Your task to perform on an android device: delete the emails in spam in the gmail app Image 0: 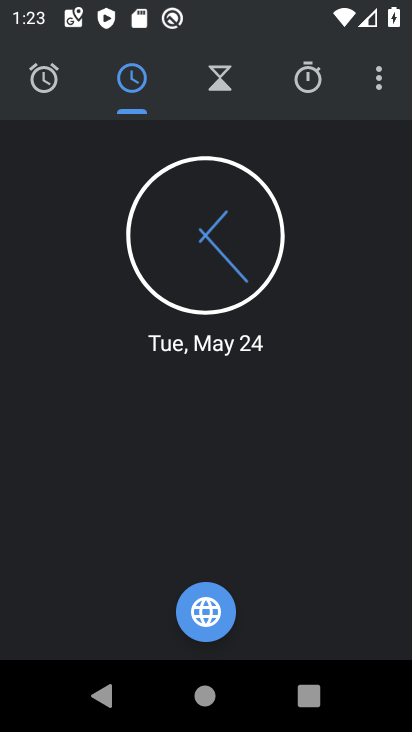
Step 0: press home button
Your task to perform on an android device: delete the emails in spam in the gmail app Image 1: 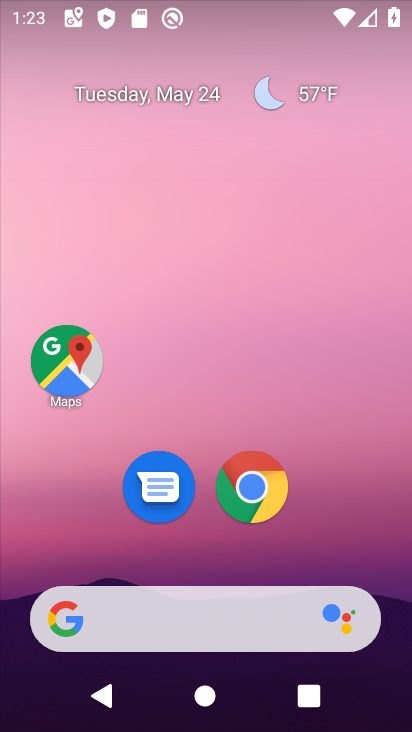
Step 1: drag from (232, 724) to (227, 129)
Your task to perform on an android device: delete the emails in spam in the gmail app Image 2: 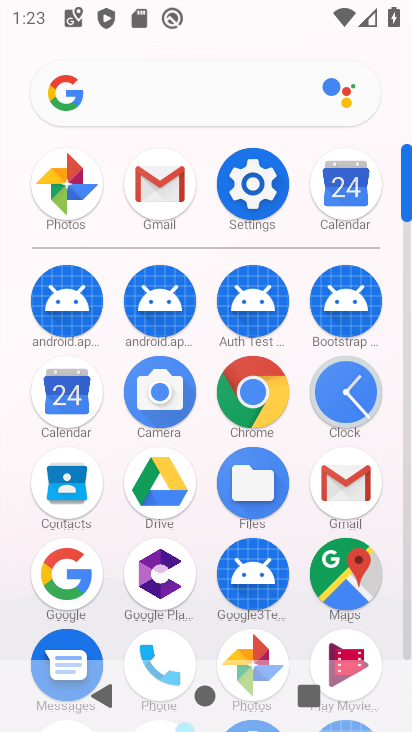
Step 2: click (347, 475)
Your task to perform on an android device: delete the emails in spam in the gmail app Image 3: 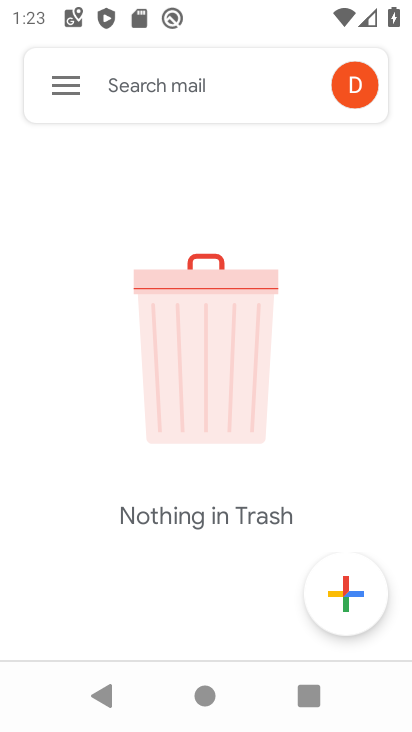
Step 3: click (62, 90)
Your task to perform on an android device: delete the emails in spam in the gmail app Image 4: 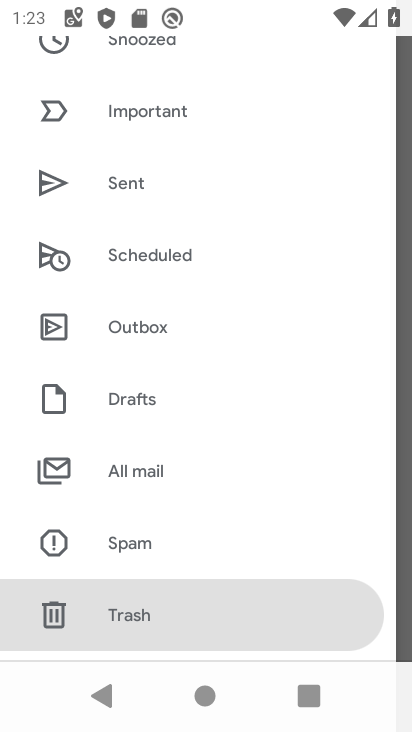
Step 4: click (133, 544)
Your task to perform on an android device: delete the emails in spam in the gmail app Image 5: 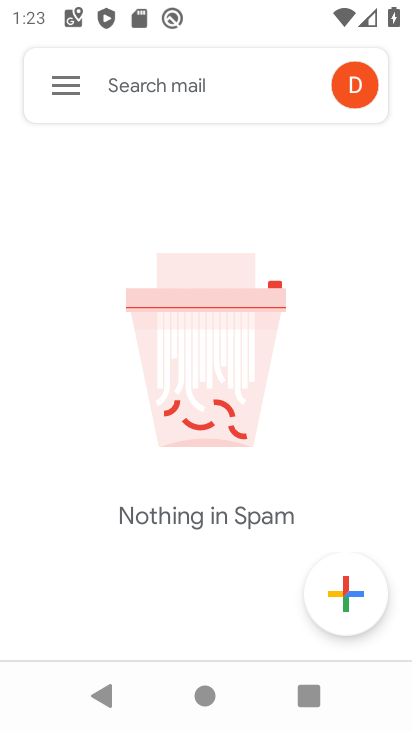
Step 5: task complete